Your task to perform on an android device: turn notification dots off Image 0: 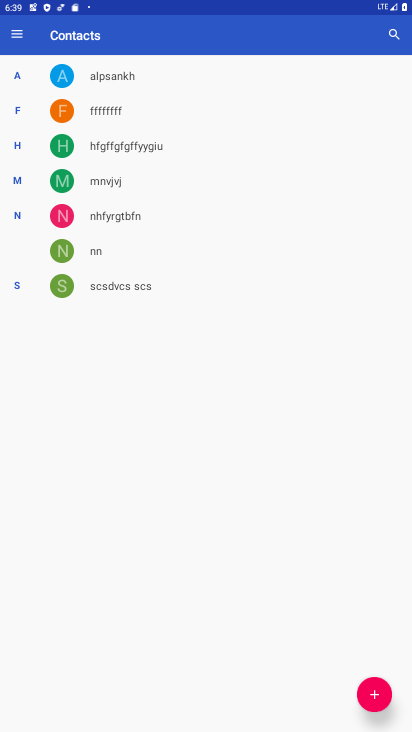
Step 0: press home button
Your task to perform on an android device: turn notification dots off Image 1: 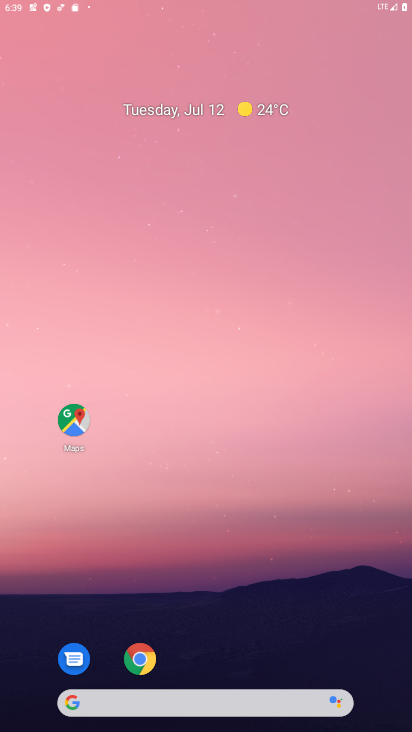
Step 1: drag from (363, 643) to (231, 13)
Your task to perform on an android device: turn notification dots off Image 2: 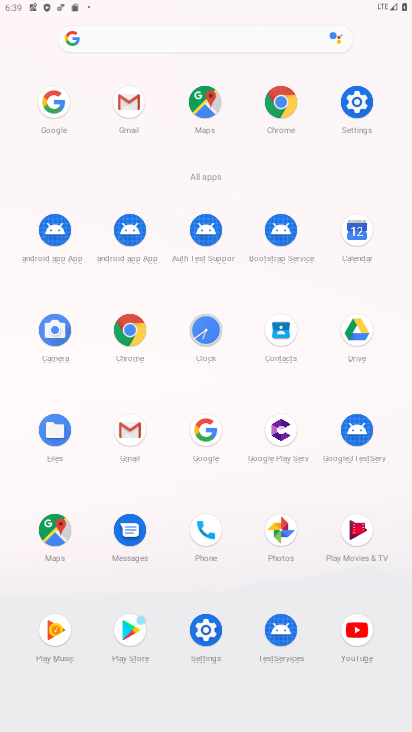
Step 2: click (357, 105)
Your task to perform on an android device: turn notification dots off Image 3: 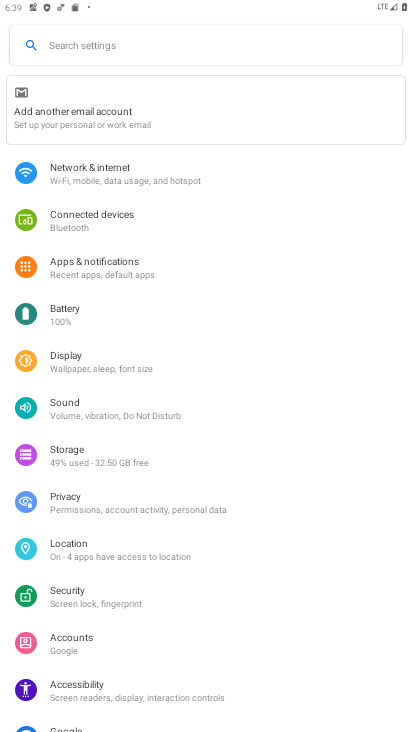
Step 3: click (107, 274)
Your task to perform on an android device: turn notification dots off Image 4: 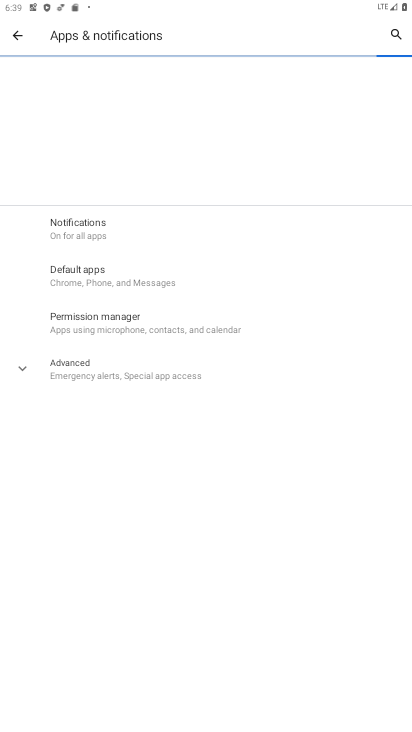
Step 4: click (86, 250)
Your task to perform on an android device: turn notification dots off Image 5: 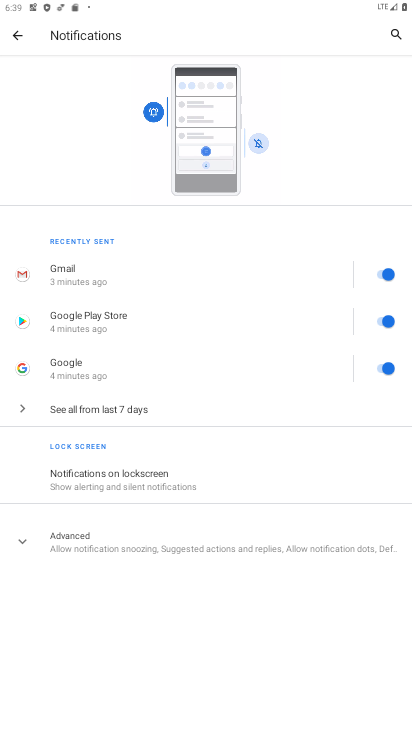
Step 5: click (54, 561)
Your task to perform on an android device: turn notification dots off Image 6: 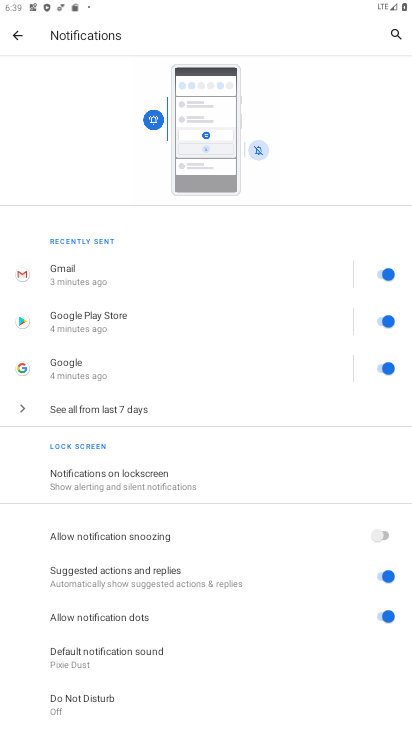
Step 6: click (154, 613)
Your task to perform on an android device: turn notification dots off Image 7: 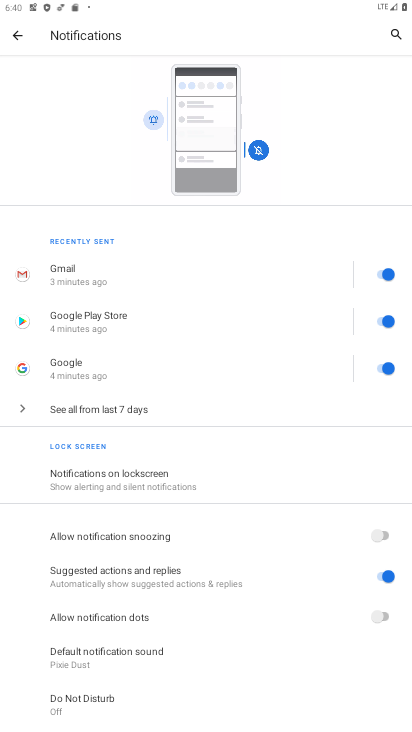
Step 7: task complete